Your task to perform on an android device: Search for vegetarian restaurants on Maps Image 0: 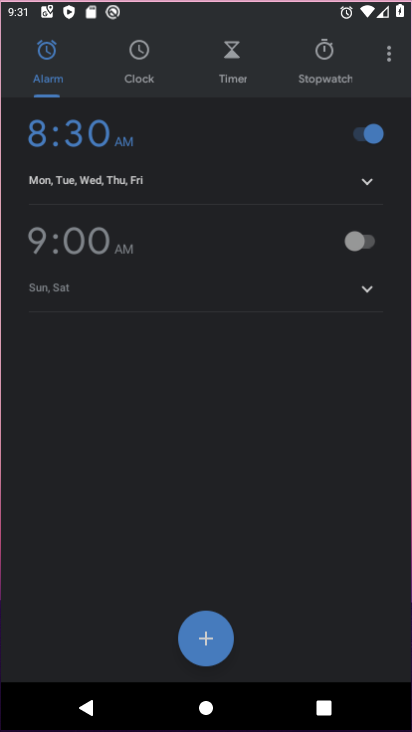
Step 0: press home button
Your task to perform on an android device: Search for vegetarian restaurants on Maps Image 1: 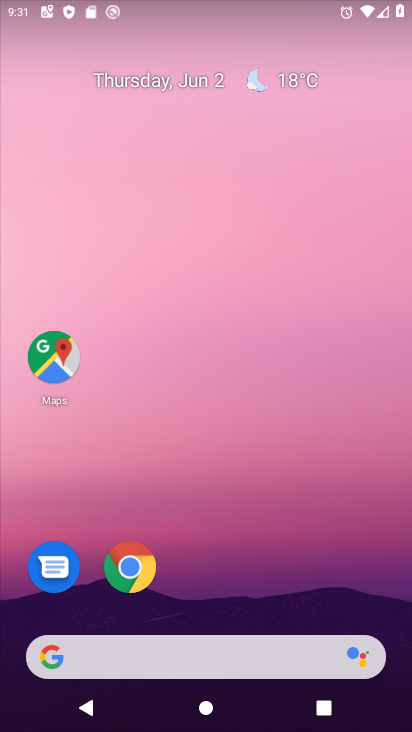
Step 1: click (57, 353)
Your task to perform on an android device: Search for vegetarian restaurants on Maps Image 2: 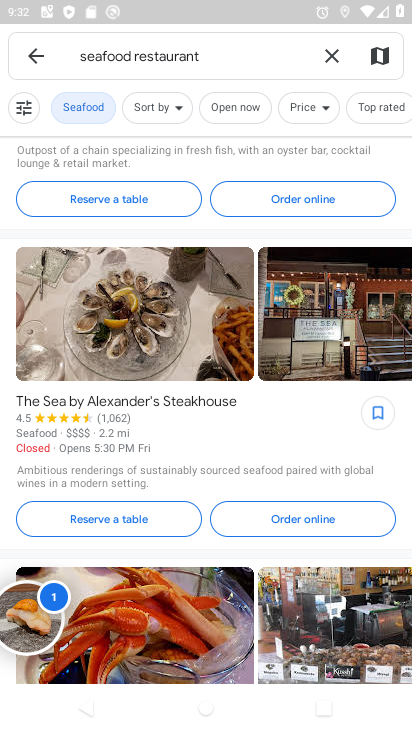
Step 2: click (327, 54)
Your task to perform on an android device: Search for vegetarian restaurants on Maps Image 3: 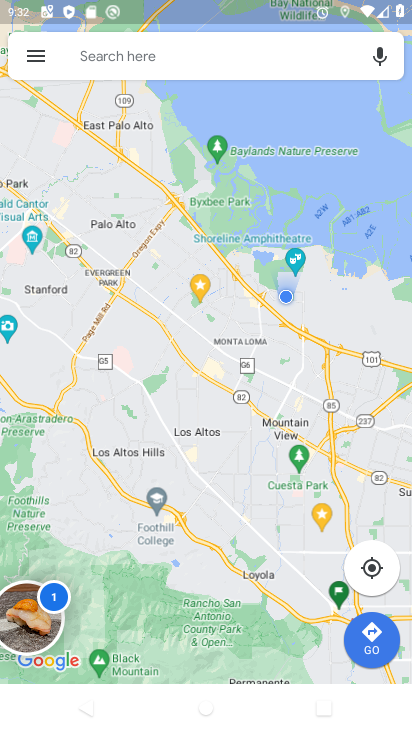
Step 3: click (137, 54)
Your task to perform on an android device: Search for vegetarian restaurants on Maps Image 4: 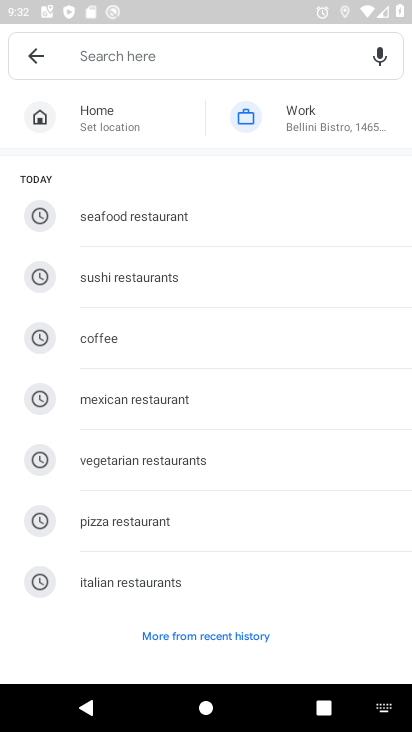
Step 4: click (154, 462)
Your task to perform on an android device: Search for vegetarian restaurants on Maps Image 5: 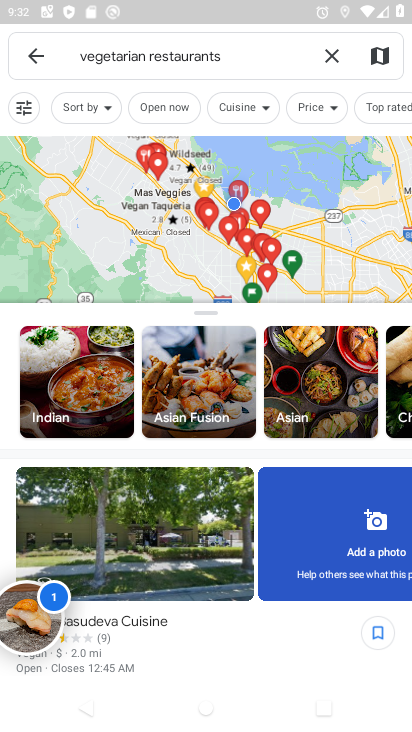
Step 5: task complete